Your task to perform on an android device: Go to privacy settings Image 0: 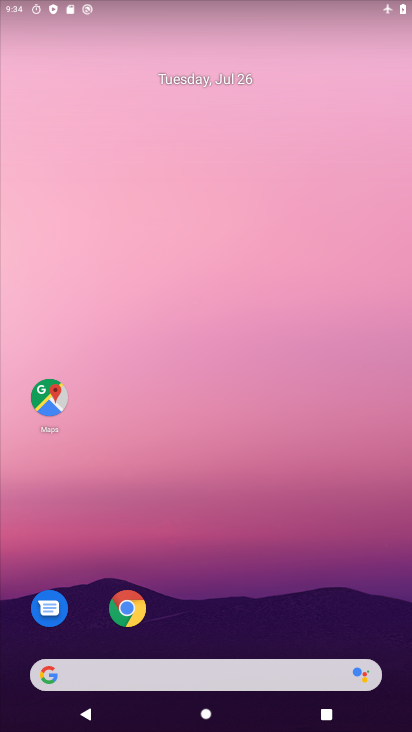
Step 0: drag from (210, 597) to (167, 128)
Your task to perform on an android device: Go to privacy settings Image 1: 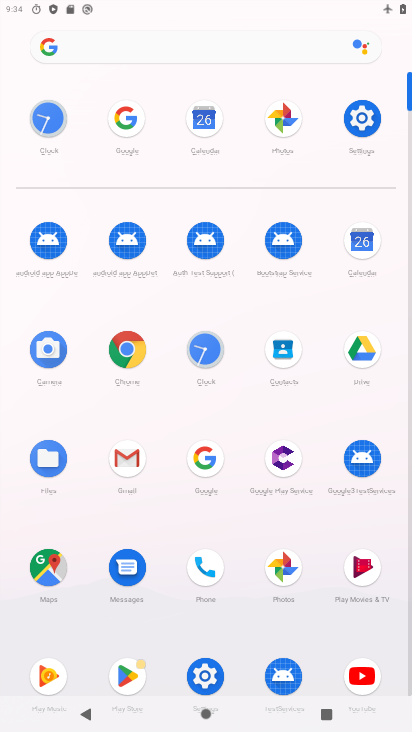
Step 1: click (373, 133)
Your task to perform on an android device: Go to privacy settings Image 2: 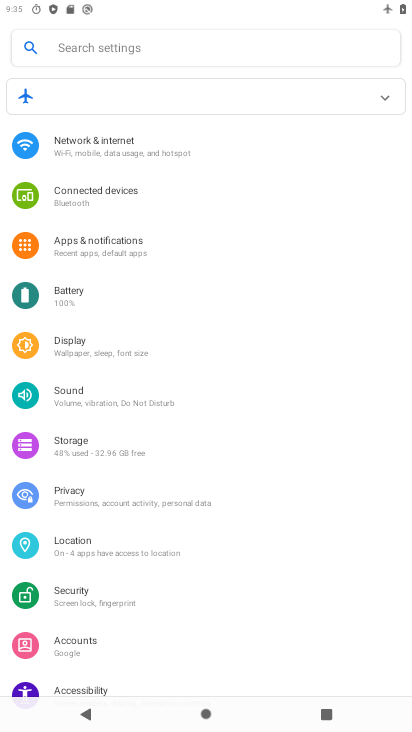
Step 2: click (89, 484)
Your task to perform on an android device: Go to privacy settings Image 3: 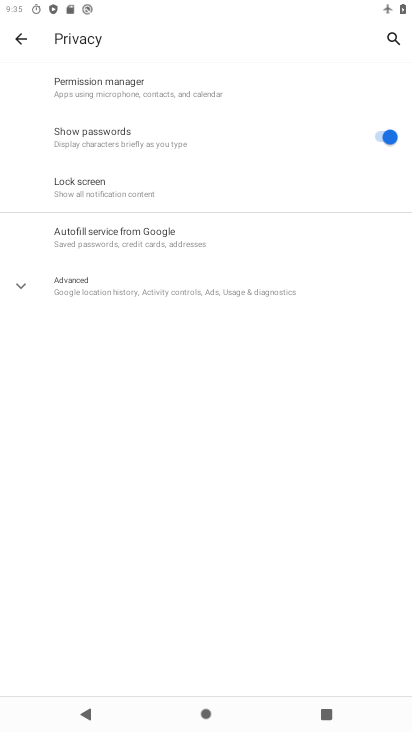
Step 3: task complete